Your task to perform on an android device: uninstall "Messages" Image 0: 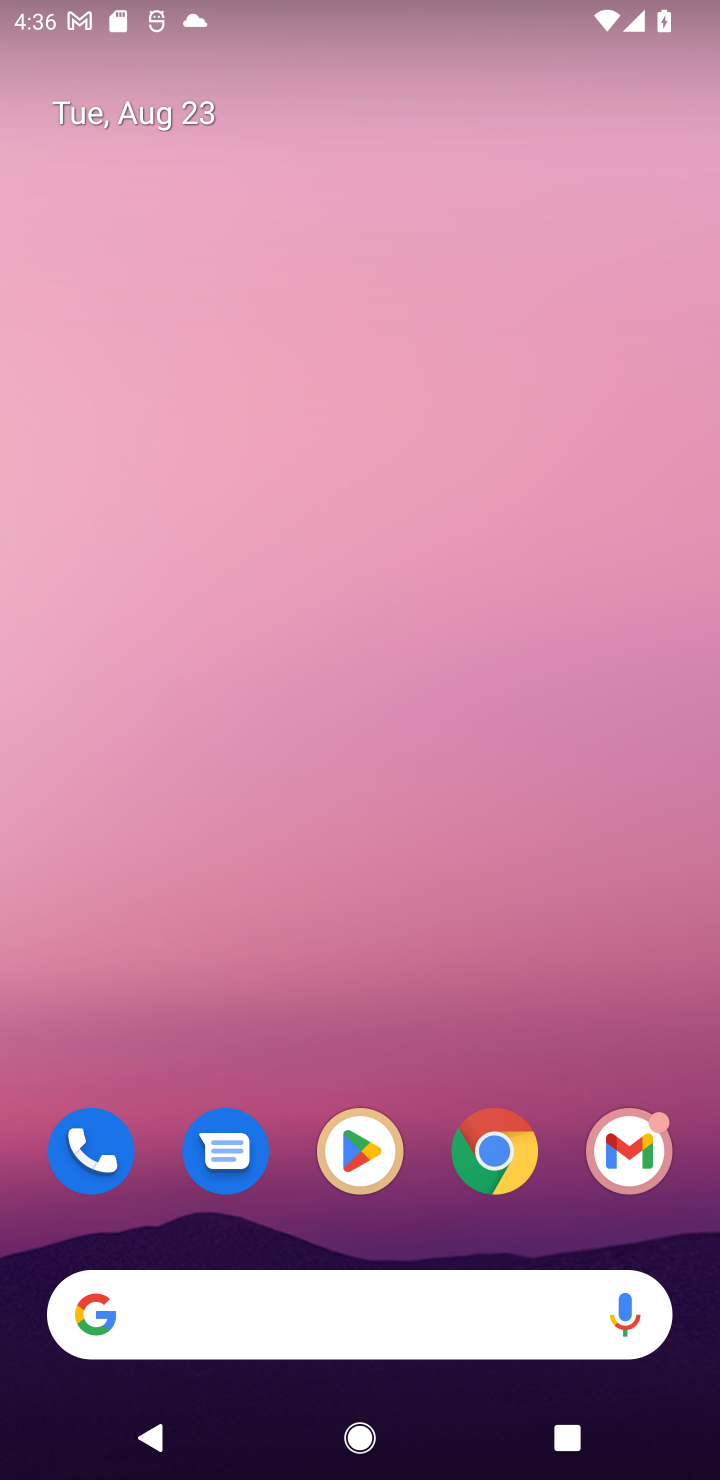
Step 0: click (343, 1152)
Your task to perform on an android device: uninstall "Messages" Image 1: 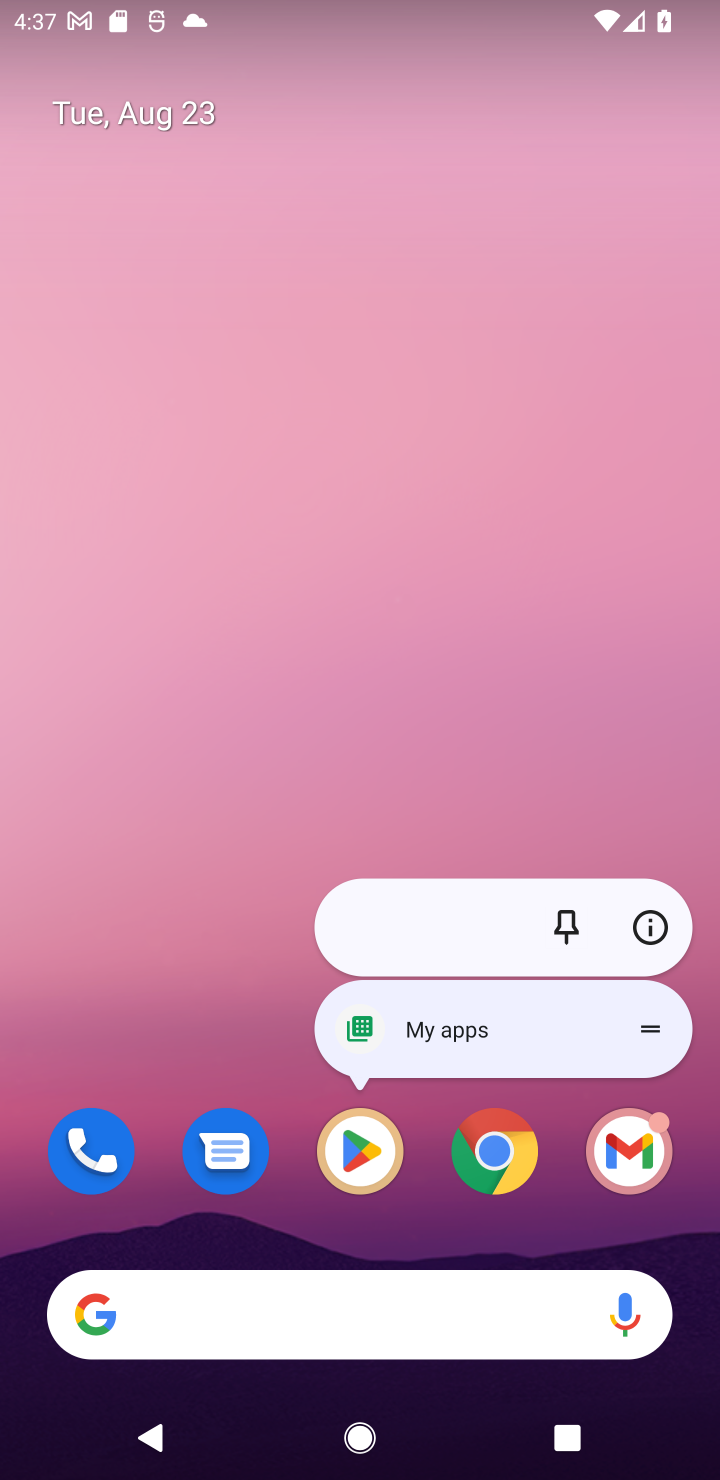
Step 1: click (343, 1150)
Your task to perform on an android device: uninstall "Messages" Image 2: 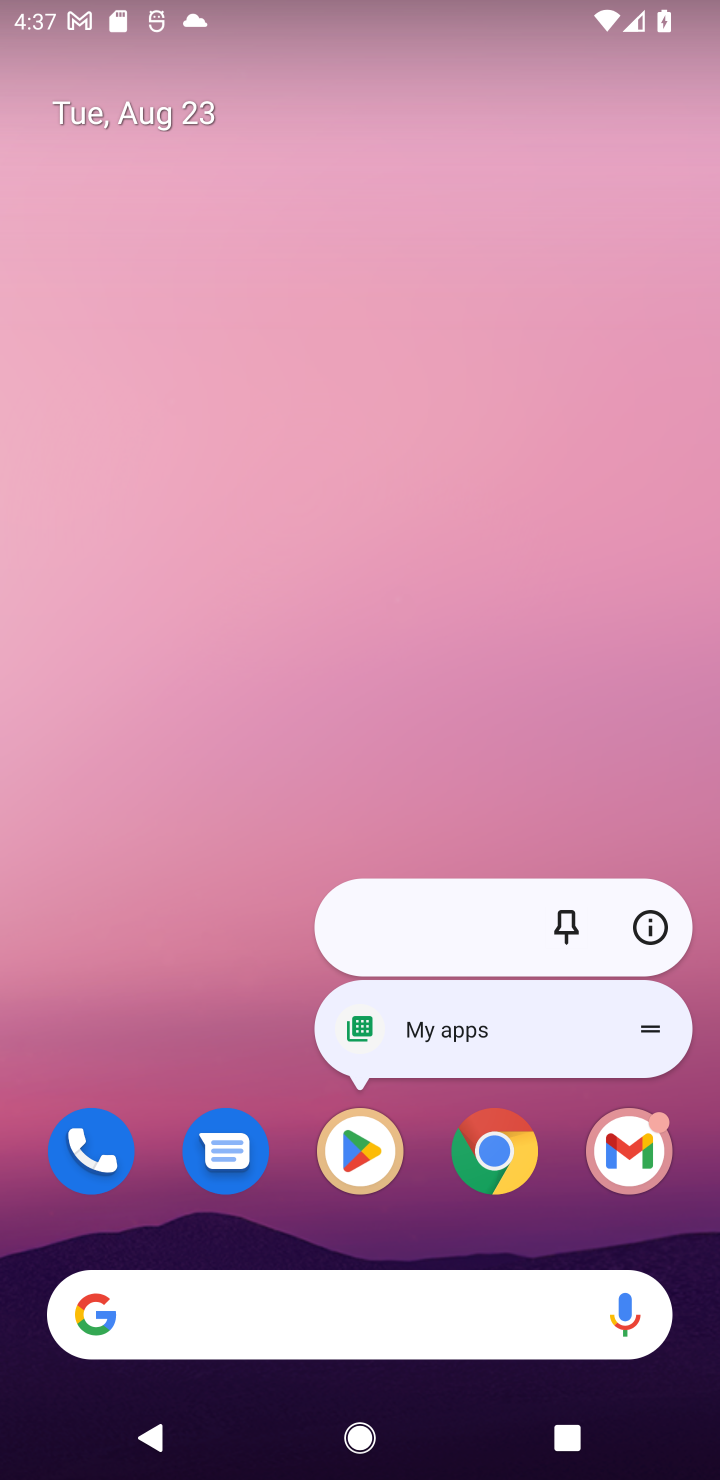
Step 2: click (349, 1149)
Your task to perform on an android device: uninstall "Messages" Image 3: 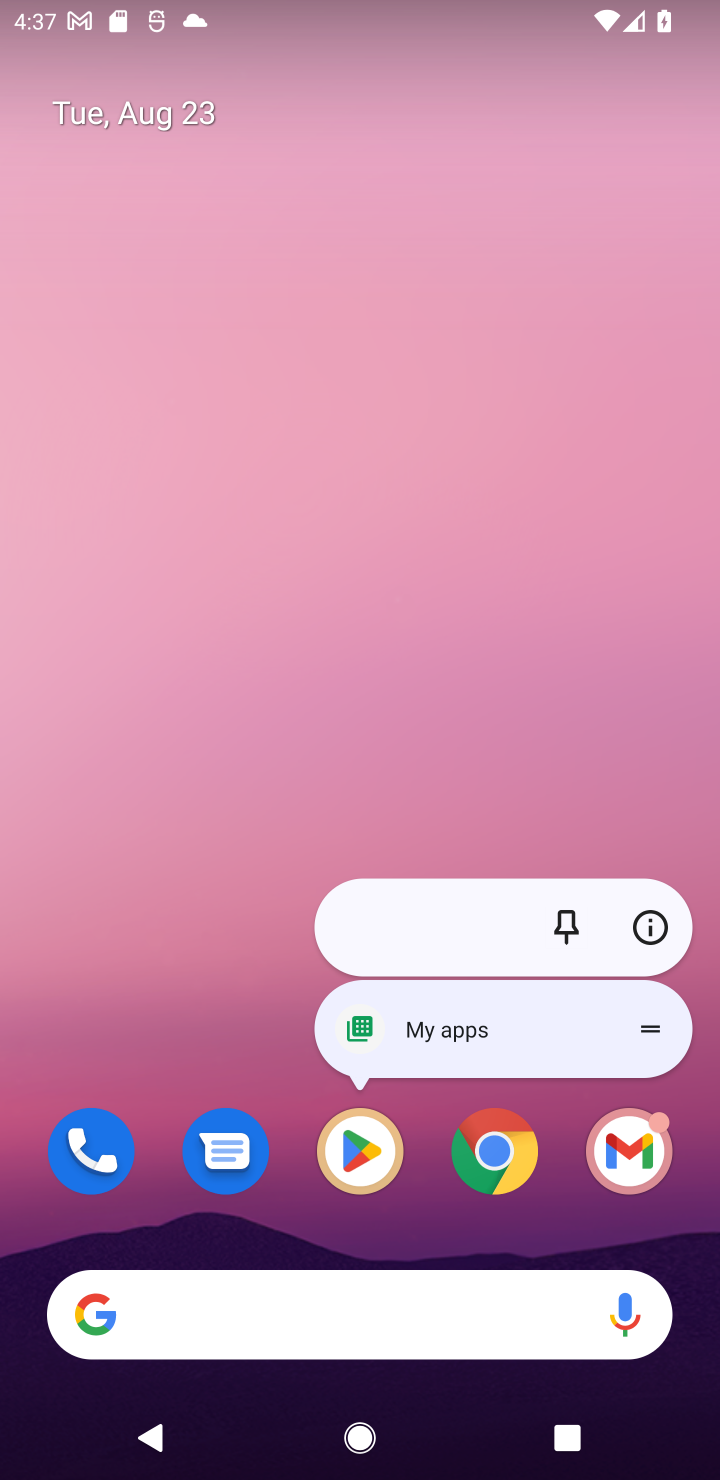
Step 3: click (349, 1168)
Your task to perform on an android device: uninstall "Messages" Image 4: 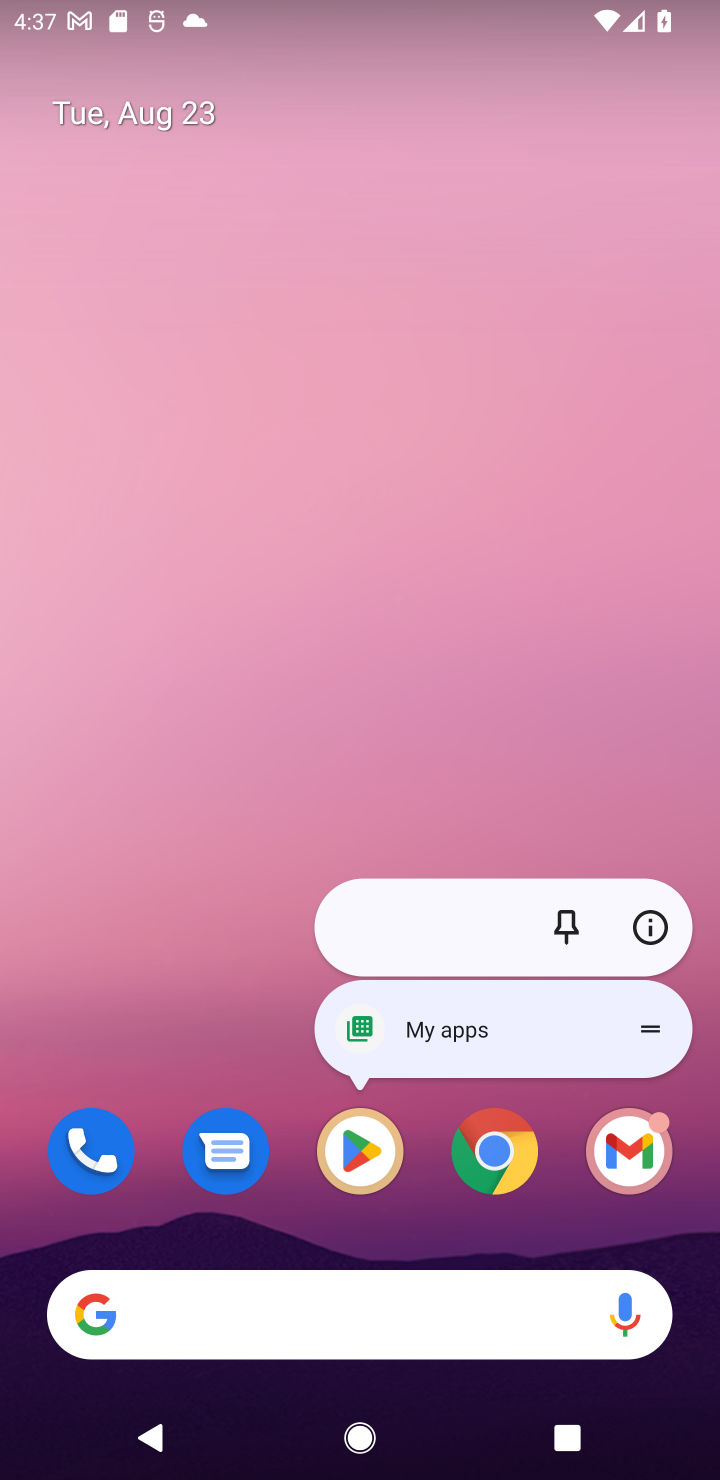
Step 4: click (349, 1160)
Your task to perform on an android device: uninstall "Messages" Image 5: 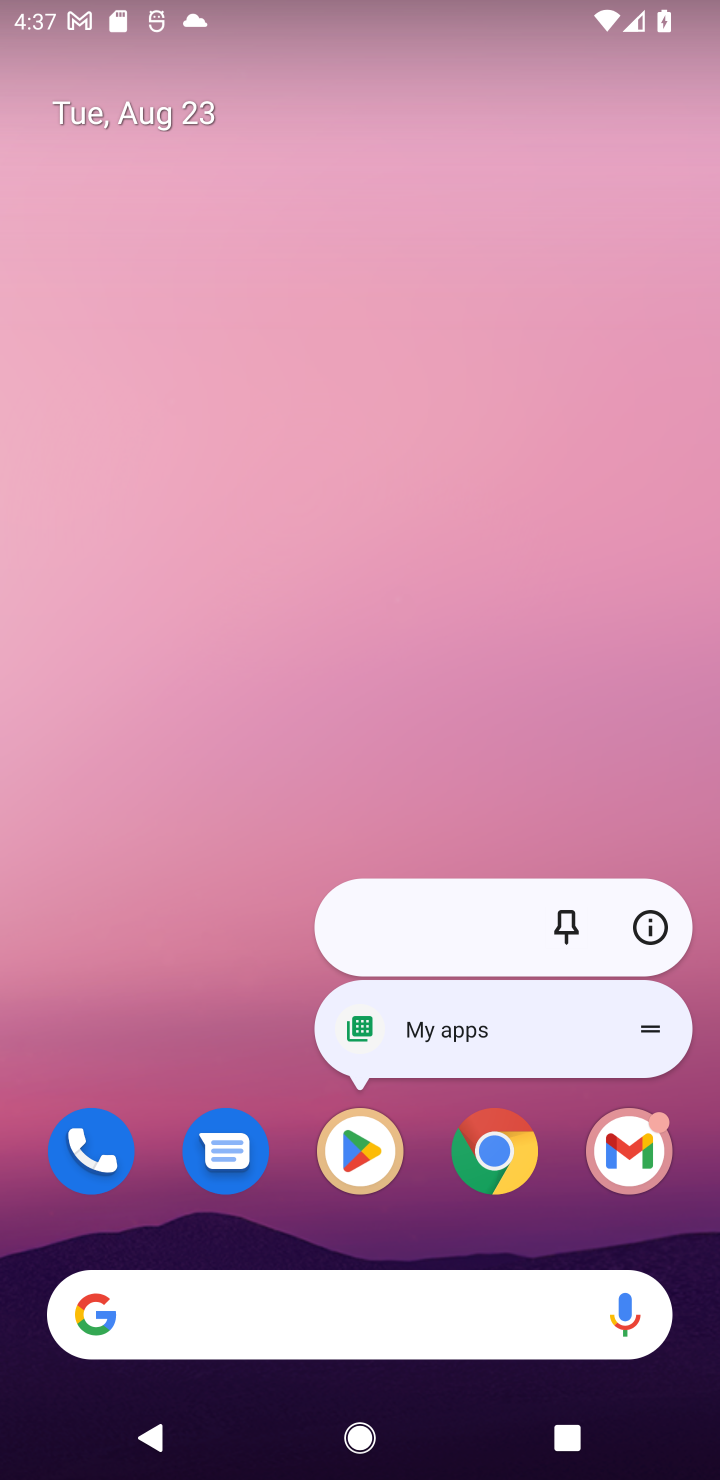
Step 5: click (344, 1159)
Your task to perform on an android device: uninstall "Messages" Image 6: 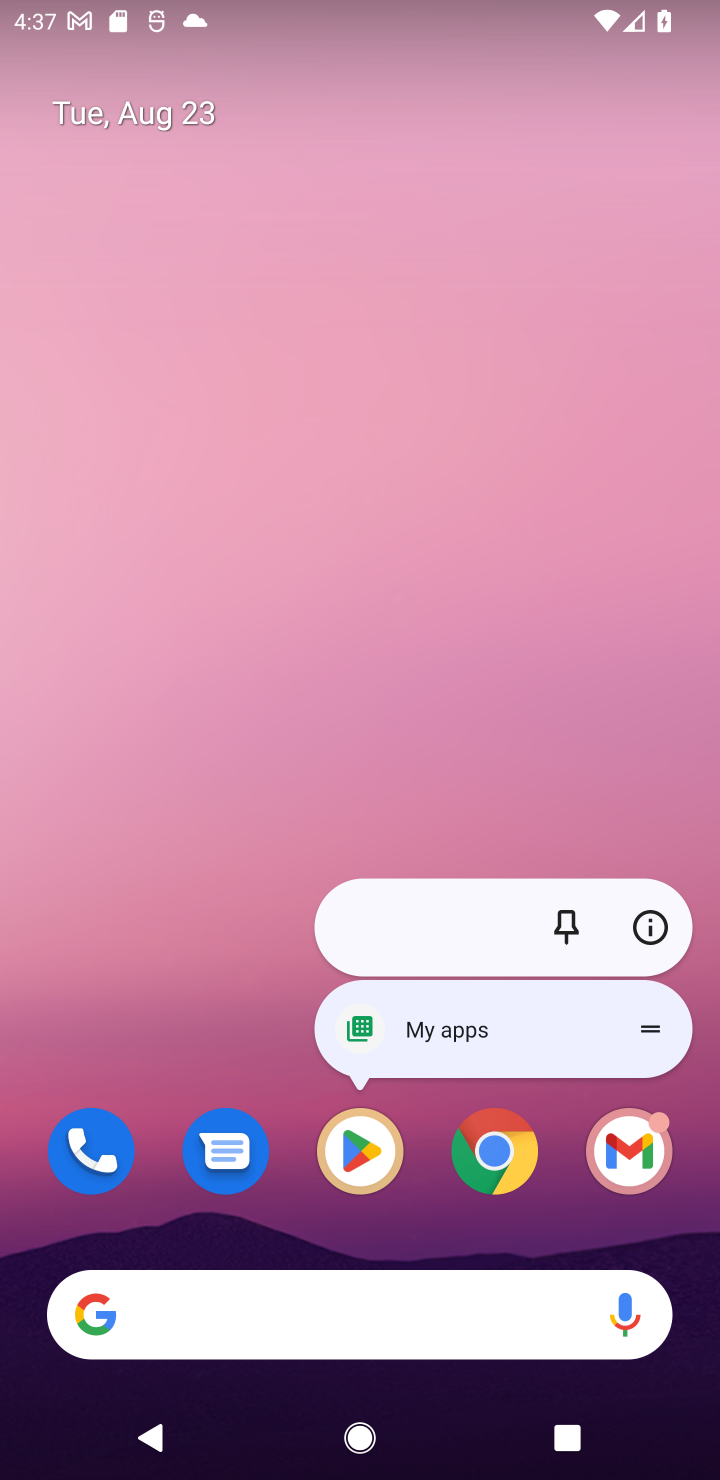
Step 6: click (364, 1144)
Your task to perform on an android device: uninstall "Messages" Image 7: 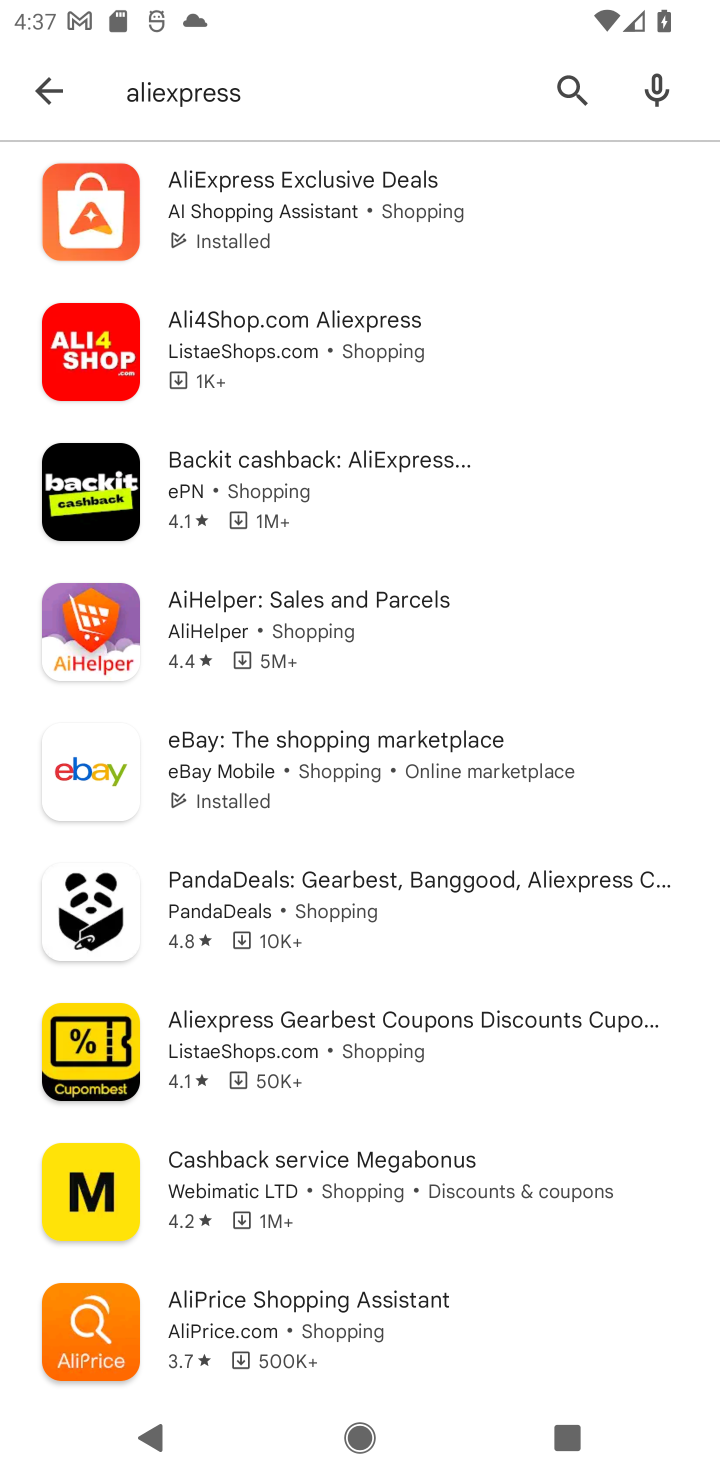
Step 7: click (568, 83)
Your task to perform on an android device: uninstall "Messages" Image 8: 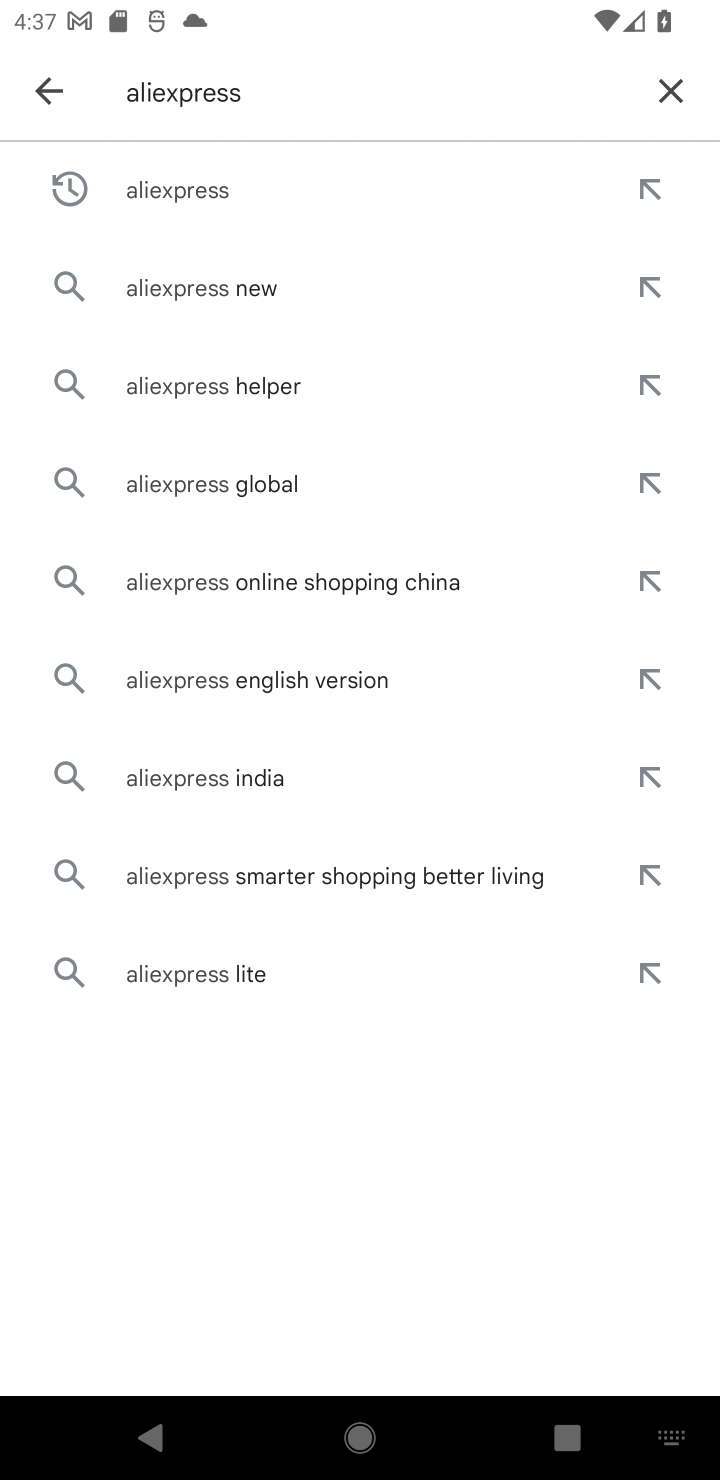
Step 8: click (681, 85)
Your task to perform on an android device: uninstall "Messages" Image 9: 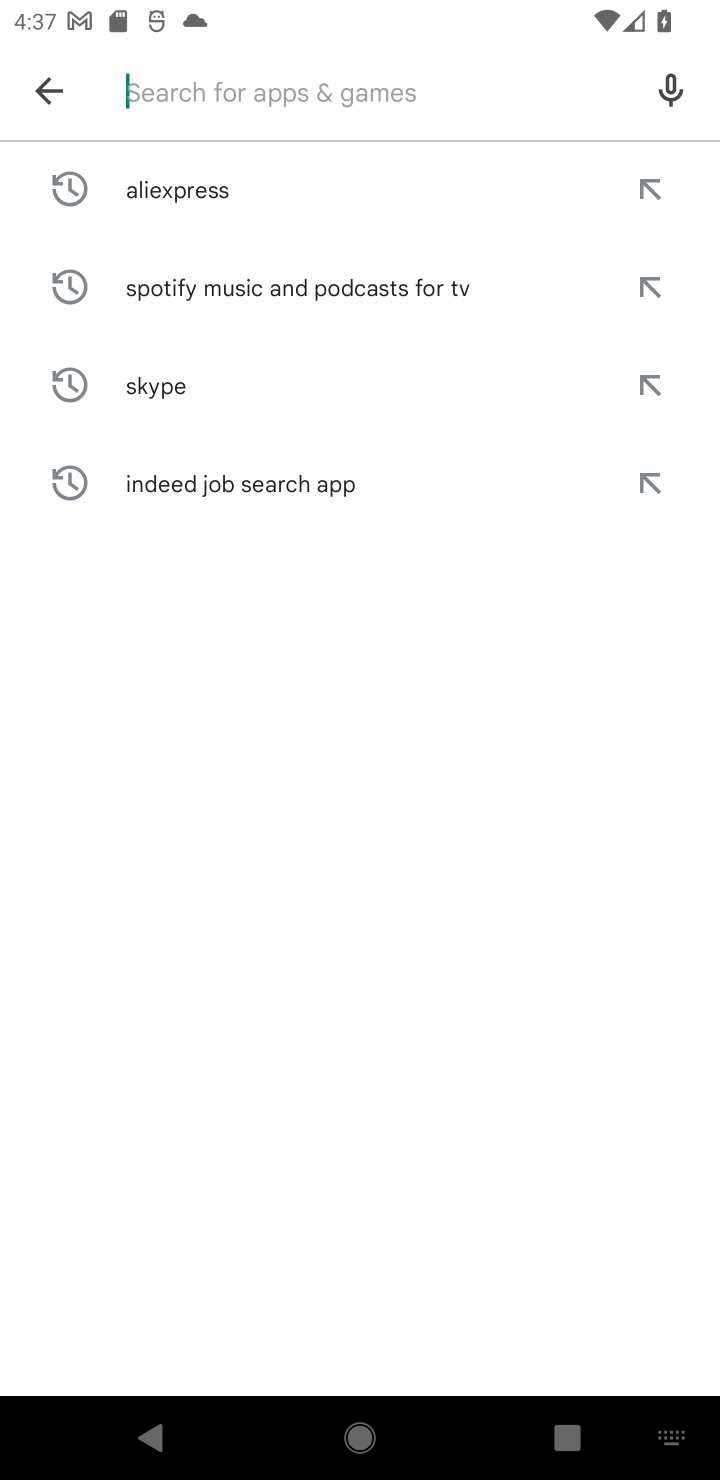
Step 9: type "Messages"
Your task to perform on an android device: uninstall "Messages" Image 10: 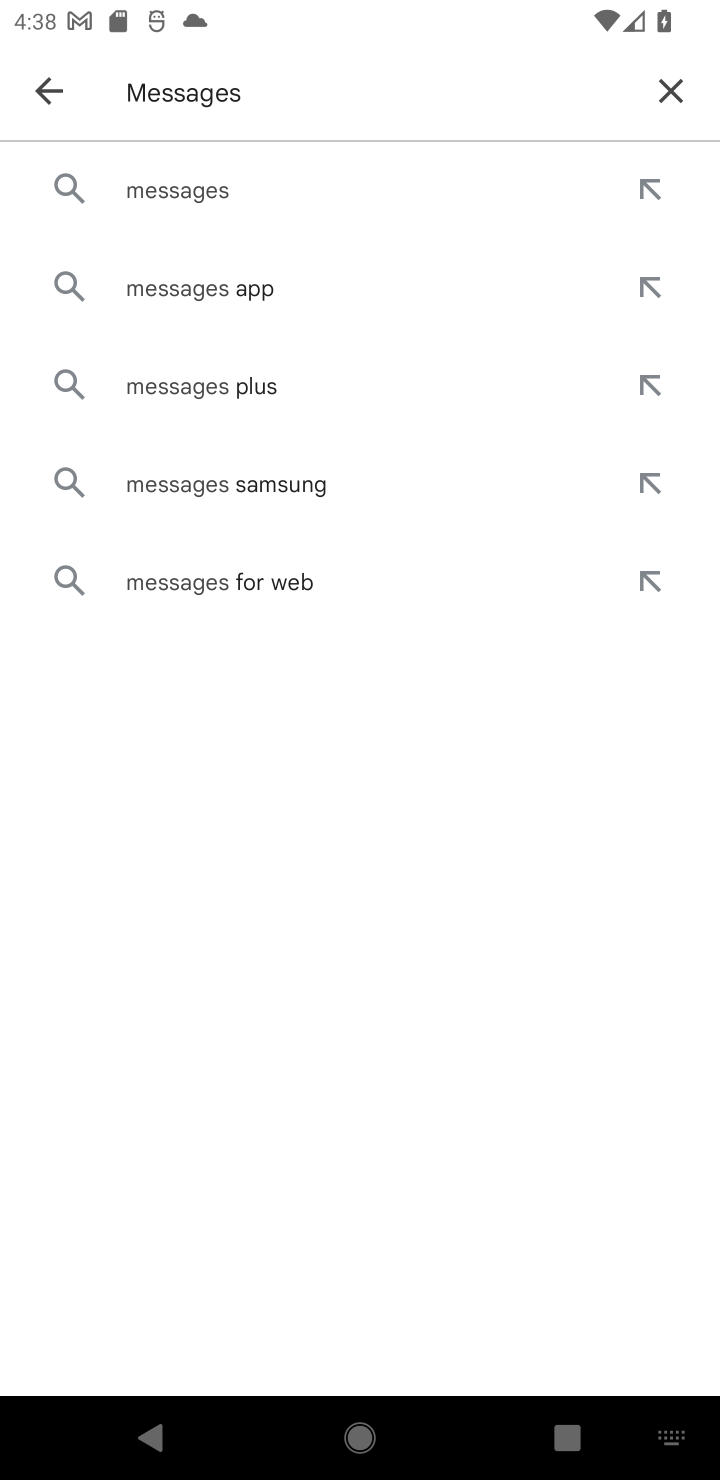
Step 10: click (145, 194)
Your task to perform on an android device: uninstall "Messages" Image 11: 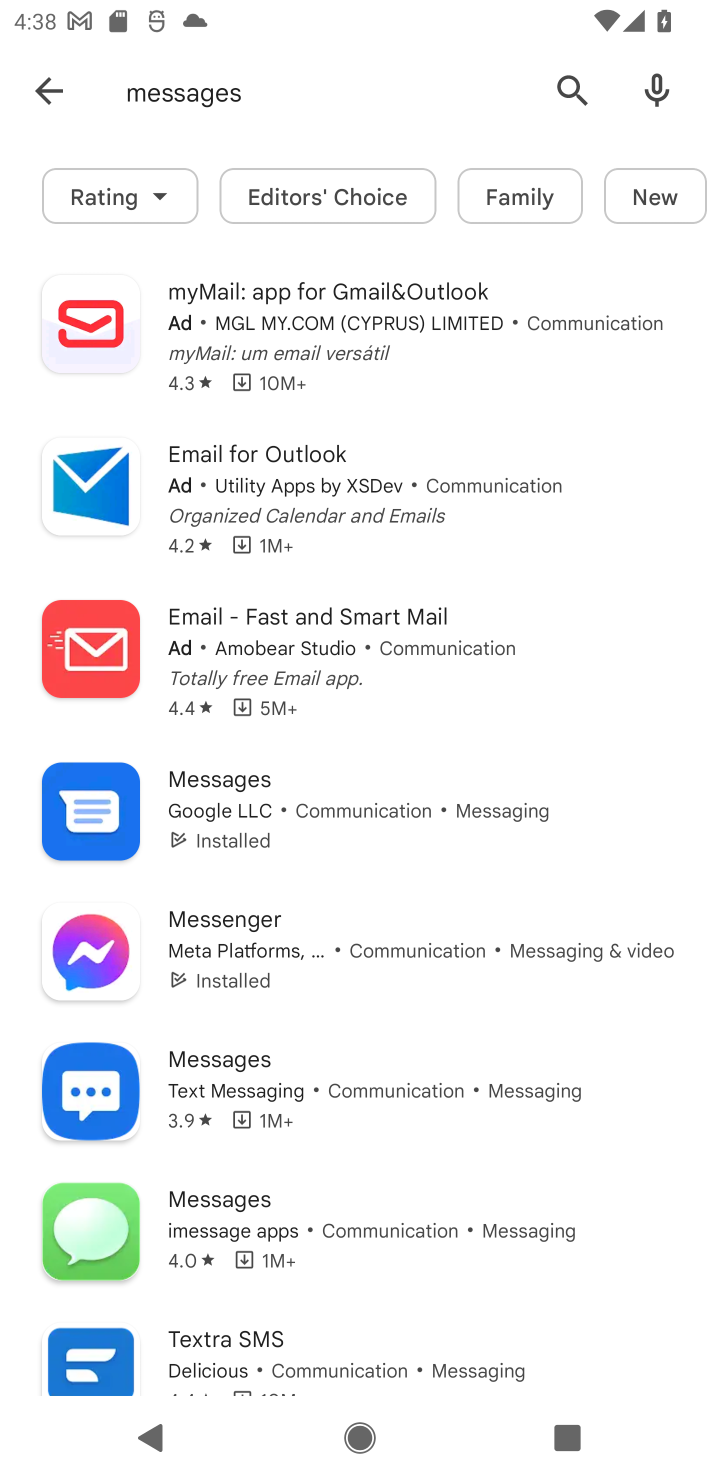
Step 11: click (317, 808)
Your task to perform on an android device: uninstall "Messages" Image 12: 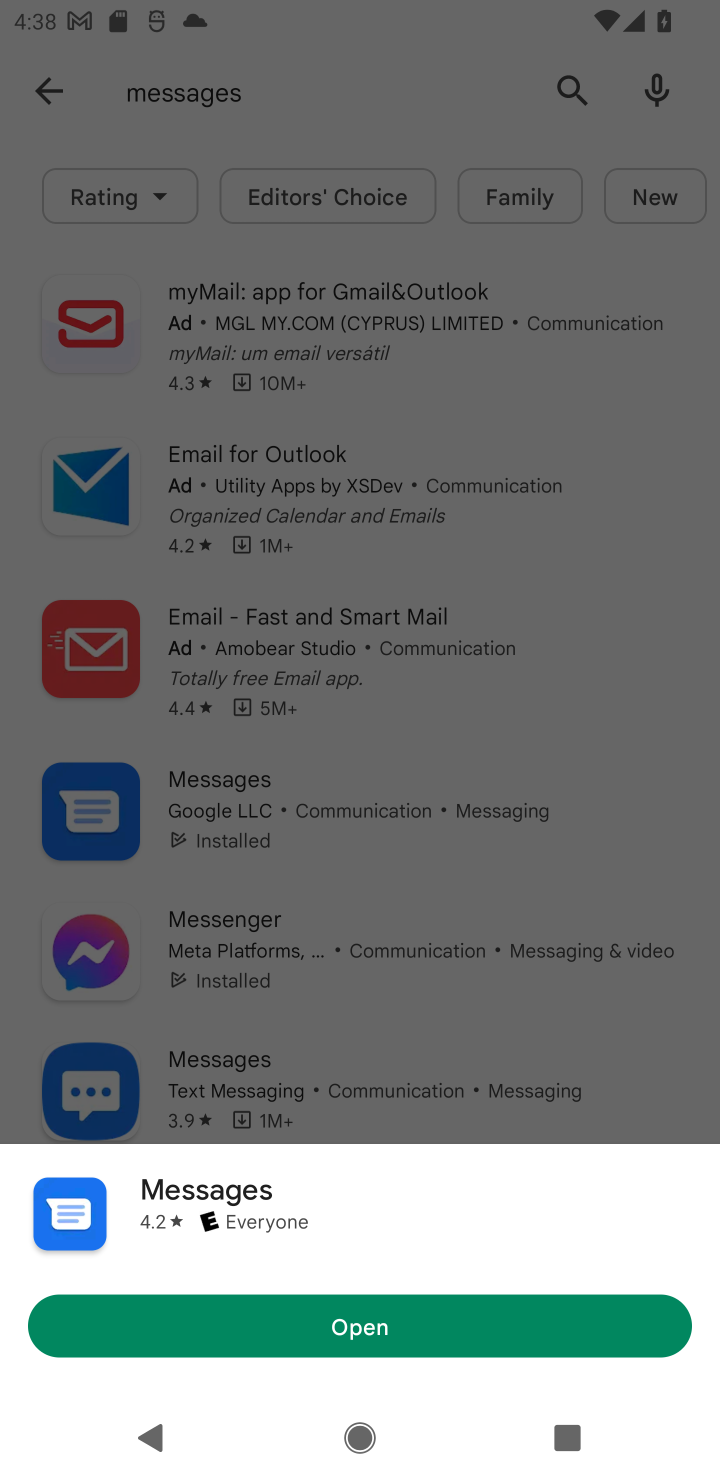
Step 12: click (78, 1206)
Your task to perform on an android device: uninstall "Messages" Image 13: 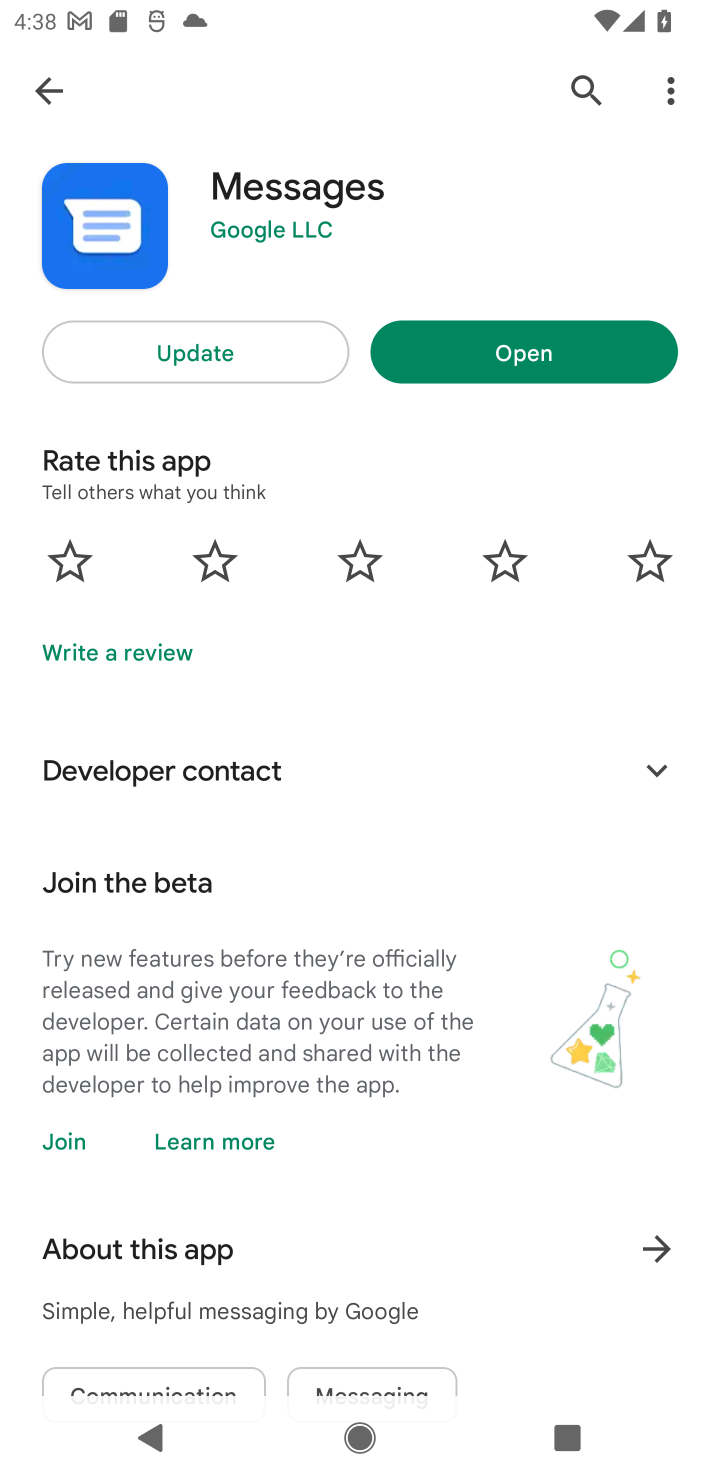
Step 13: task complete